Your task to perform on an android device: change the upload size in google photos Image 0: 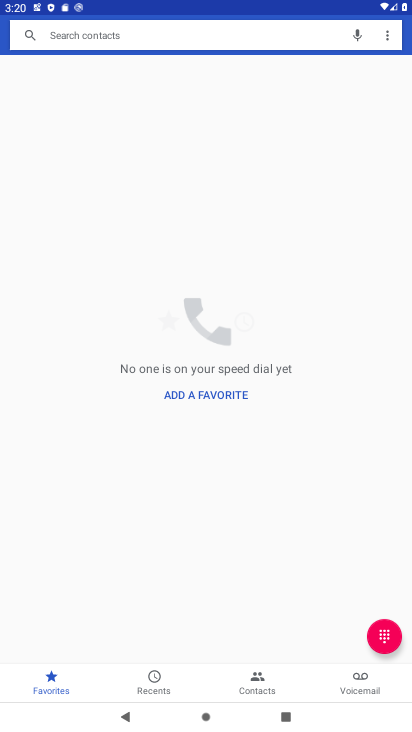
Step 0: press home button
Your task to perform on an android device: change the upload size in google photos Image 1: 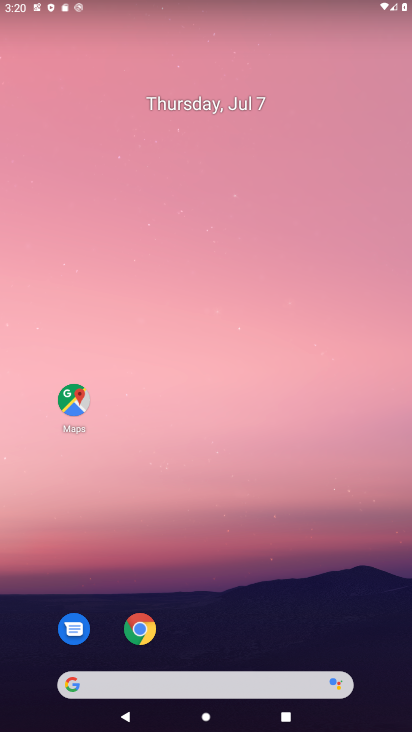
Step 1: drag from (277, 599) to (297, 152)
Your task to perform on an android device: change the upload size in google photos Image 2: 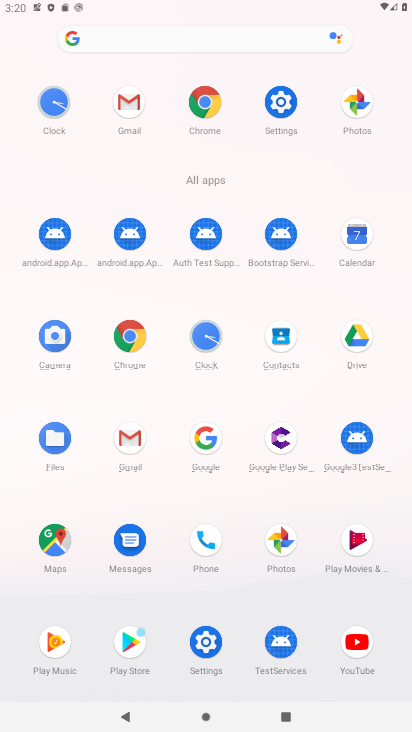
Step 2: click (282, 525)
Your task to perform on an android device: change the upload size in google photos Image 3: 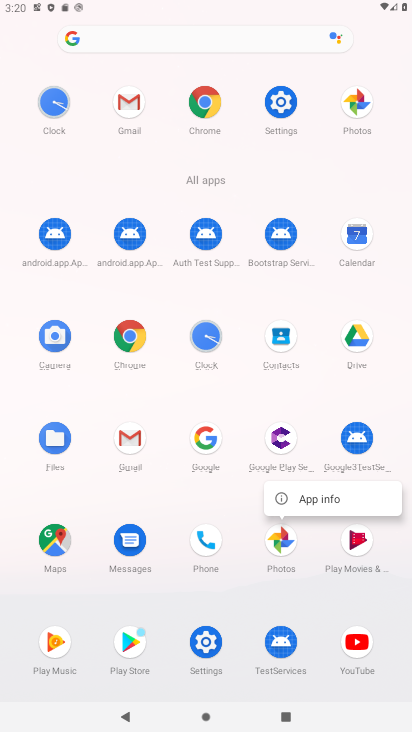
Step 3: click (282, 533)
Your task to perform on an android device: change the upload size in google photos Image 4: 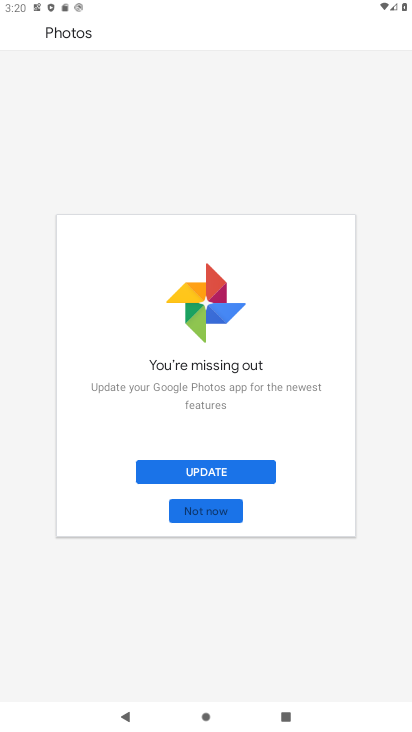
Step 4: click (221, 507)
Your task to perform on an android device: change the upload size in google photos Image 5: 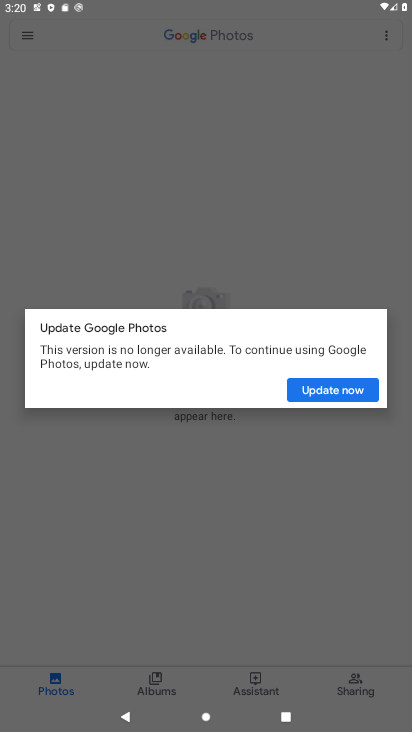
Step 5: click (223, 456)
Your task to perform on an android device: change the upload size in google photos Image 6: 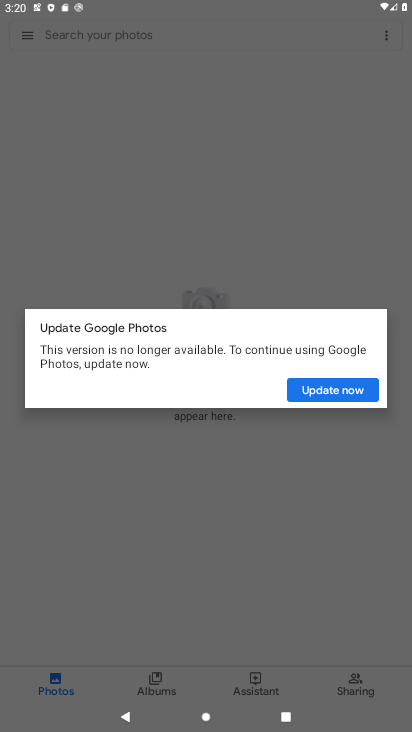
Step 6: click (345, 391)
Your task to perform on an android device: change the upload size in google photos Image 7: 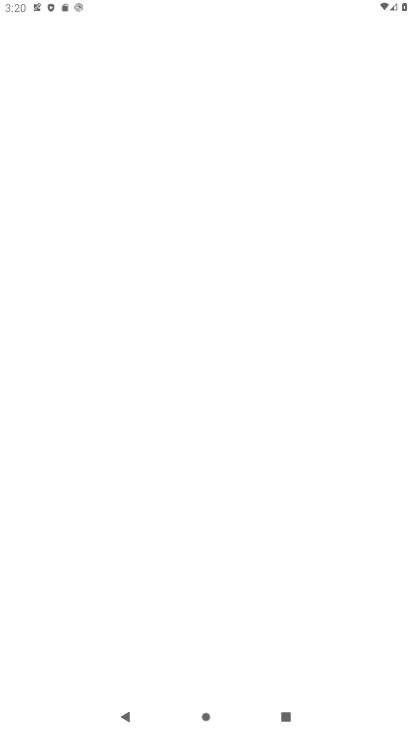
Step 7: press back button
Your task to perform on an android device: change the upload size in google photos Image 8: 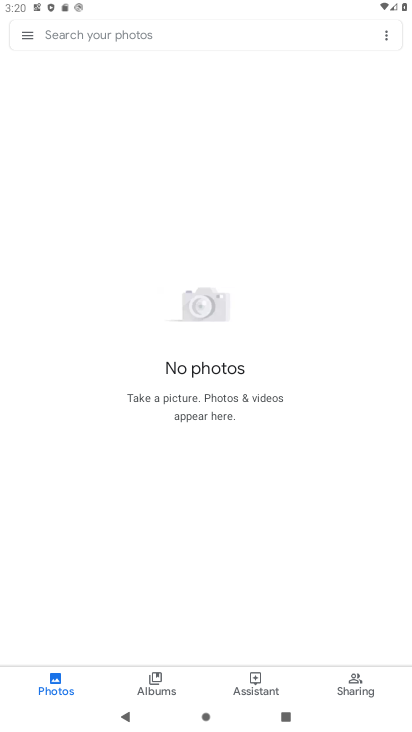
Step 8: click (29, 31)
Your task to perform on an android device: change the upload size in google photos Image 9: 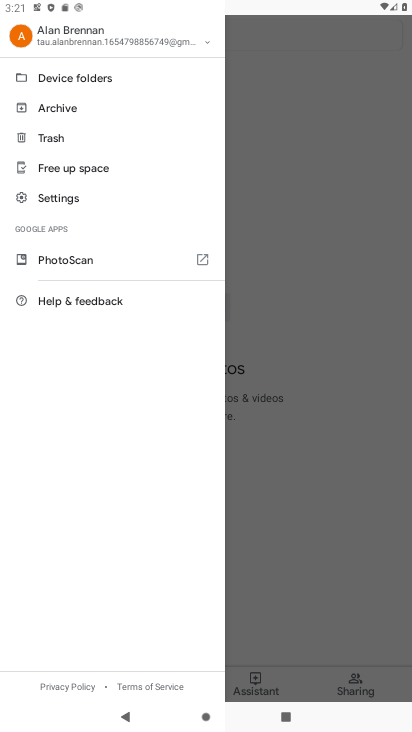
Step 9: click (37, 184)
Your task to perform on an android device: change the upload size in google photos Image 10: 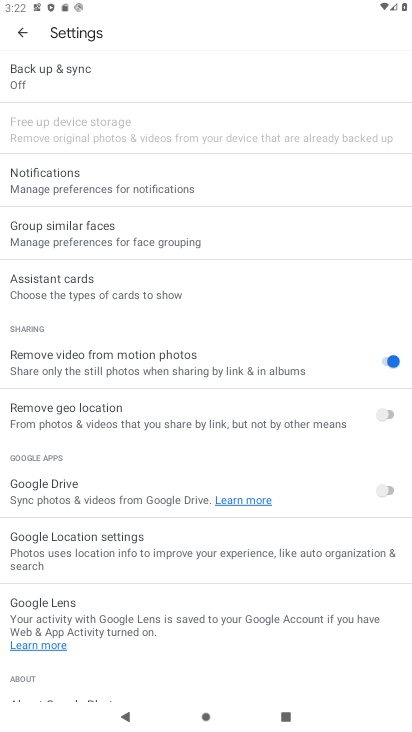
Step 10: task complete